Your task to perform on an android device: Go to settings Image 0: 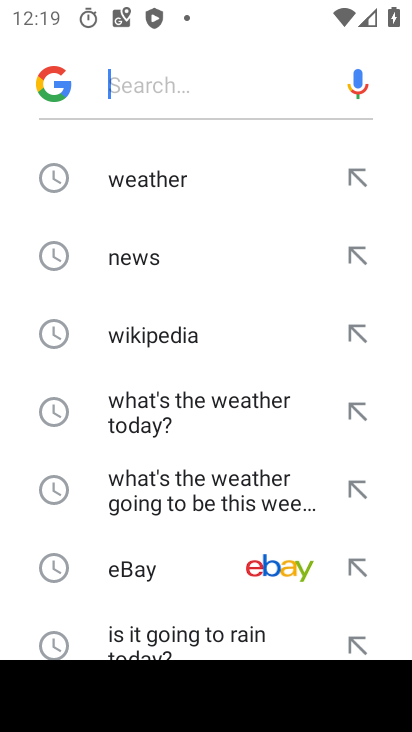
Step 0: press home button
Your task to perform on an android device: Go to settings Image 1: 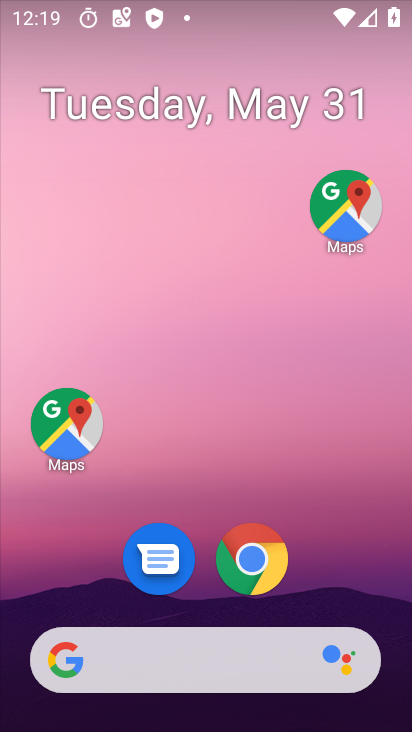
Step 1: drag from (331, 430) to (260, 102)
Your task to perform on an android device: Go to settings Image 2: 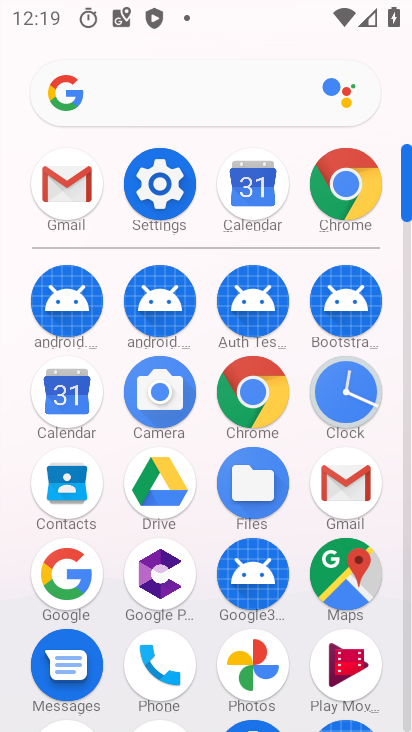
Step 2: click (181, 175)
Your task to perform on an android device: Go to settings Image 3: 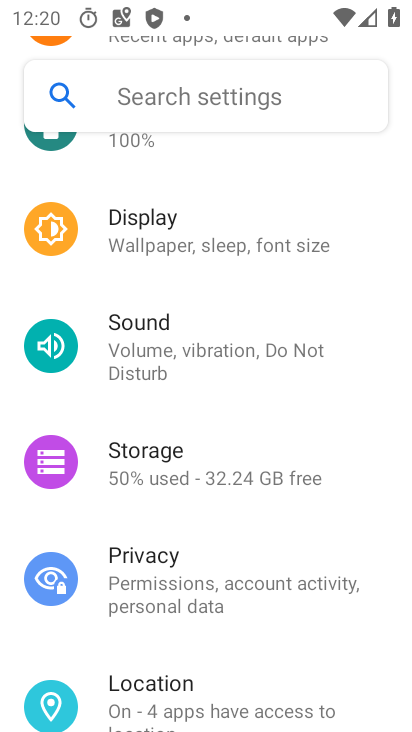
Step 3: task complete